Your task to perform on an android device: Open CNN.com Image 0: 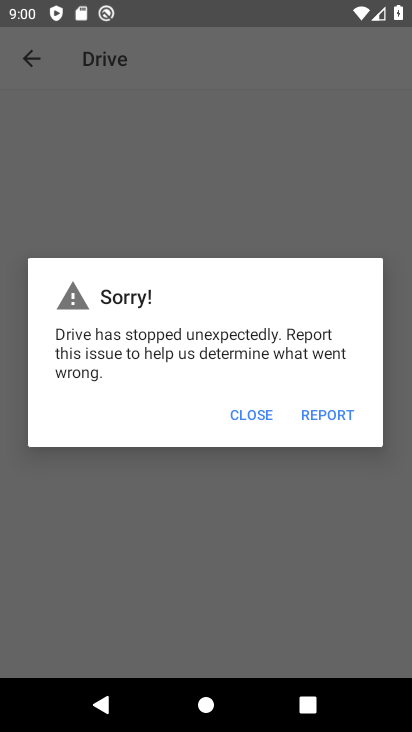
Step 0: press home button
Your task to perform on an android device: Open CNN.com Image 1: 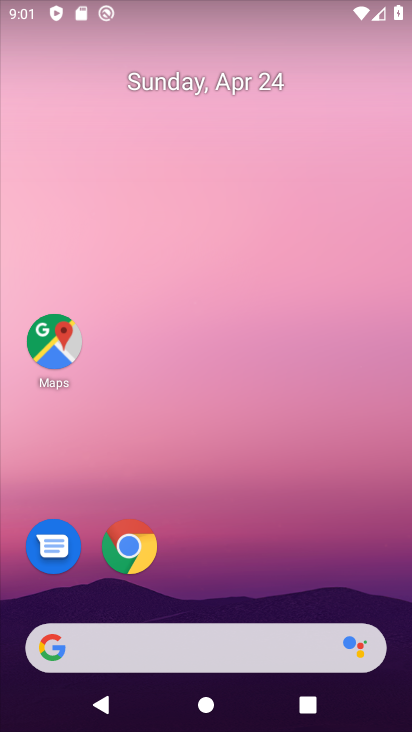
Step 1: drag from (190, 605) to (287, 223)
Your task to perform on an android device: Open CNN.com Image 2: 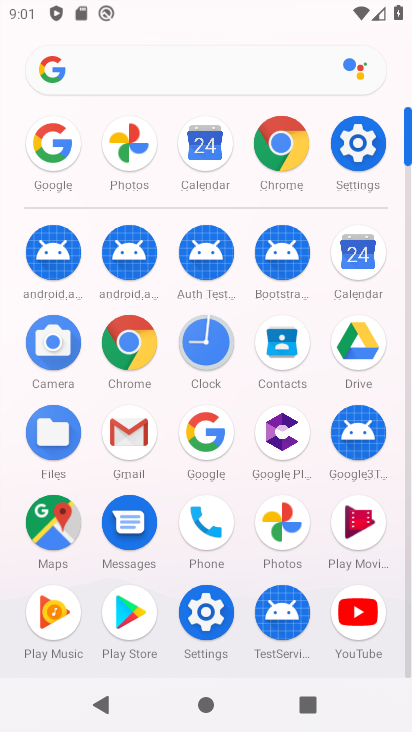
Step 2: click (277, 165)
Your task to perform on an android device: Open CNN.com Image 3: 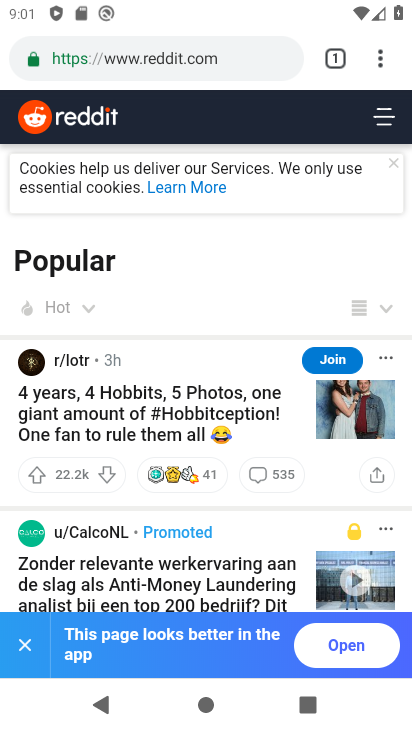
Step 3: click (329, 59)
Your task to perform on an android device: Open CNN.com Image 4: 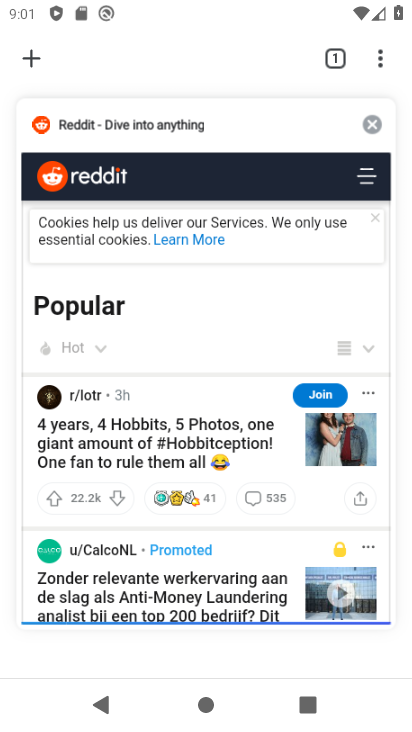
Step 4: click (20, 52)
Your task to perform on an android device: Open CNN.com Image 5: 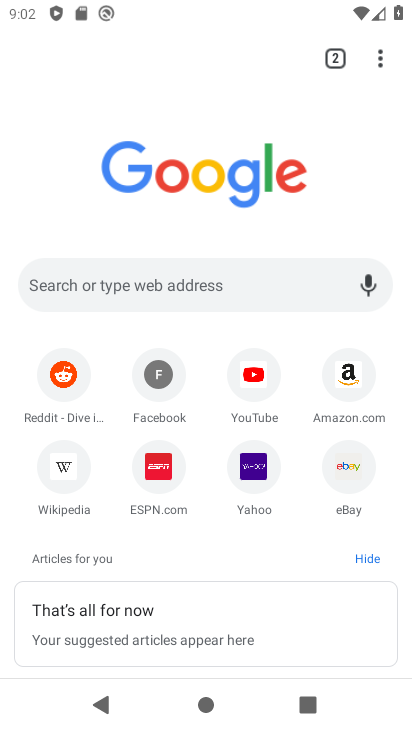
Step 5: click (130, 276)
Your task to perform on an android device: Open CNN.com Image 6: 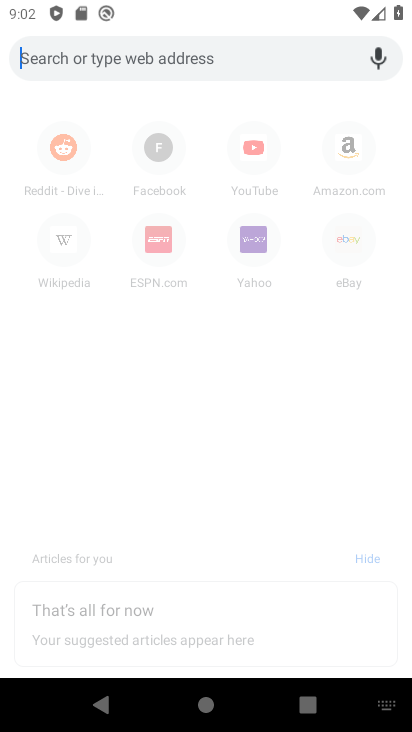
Step 6: type "cnn"
Your task to perform on an android device: Open CNN.com Image 7: 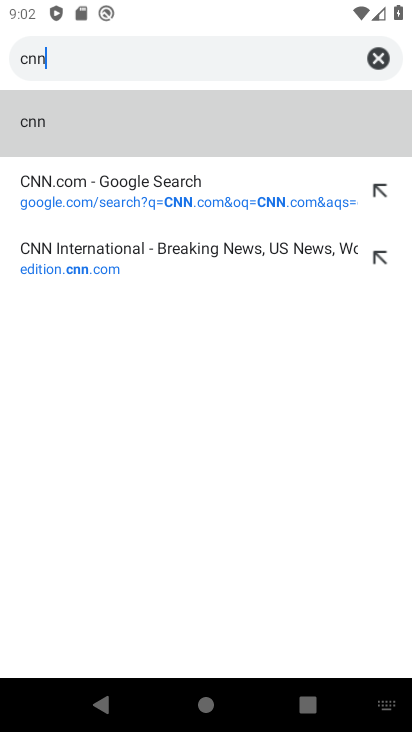
Step 7: click (113, 198)
Your task to perform on an android device: Open CNN.com Image 8: 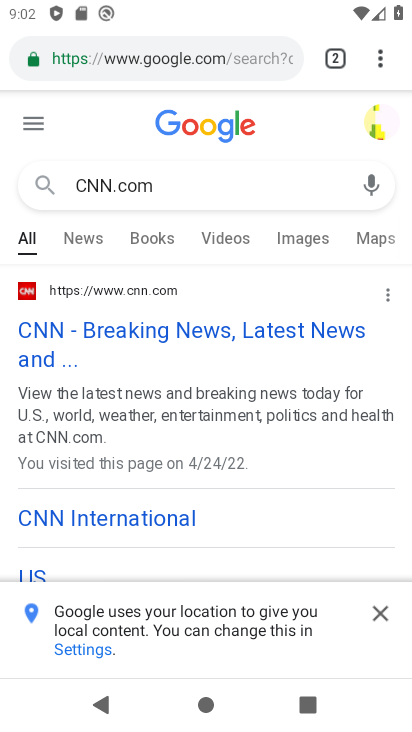
Step 8: click (119, 332)
Your task to perform on an android device: Open CNN.com Image 9: 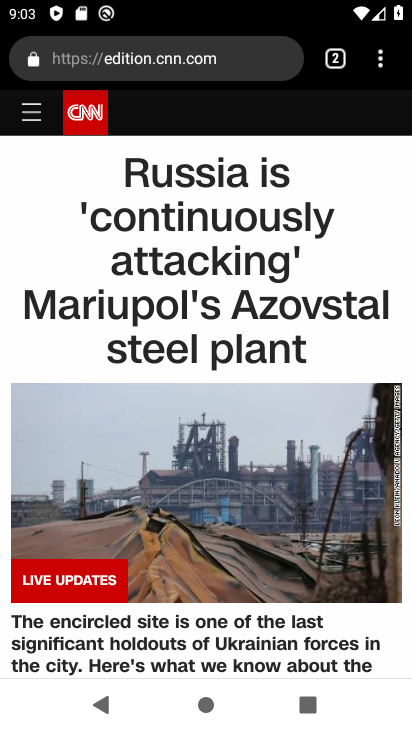
Step 9: task complete